Your task to perform on an android device: Show me popular videos on Youtube Image 0: 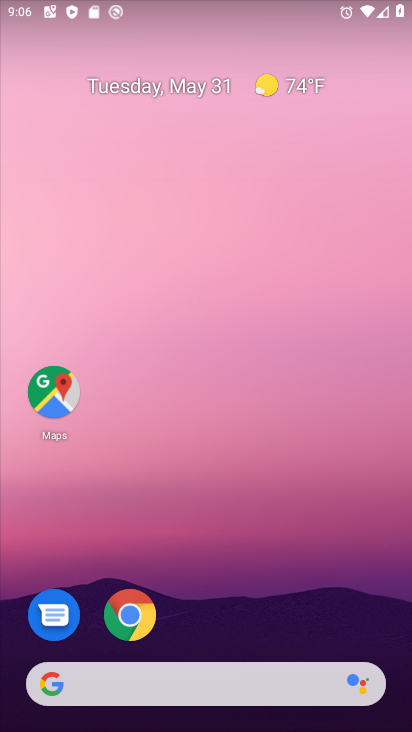
Step 0: drag from (218, 640) to (211, 228)
Your task to perform on an android device: Show me popular videos on Youtube Image 1: 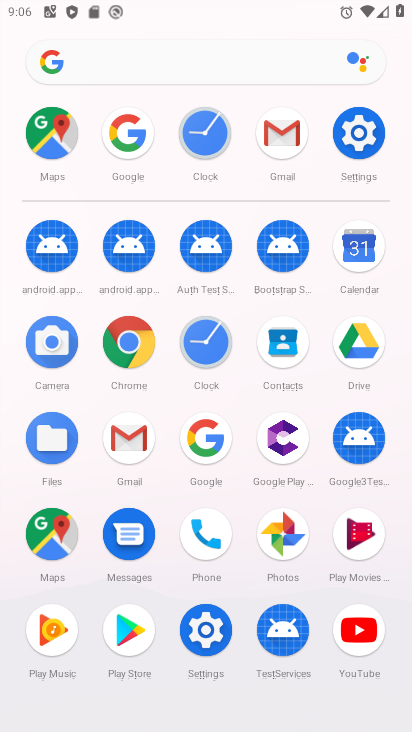
Step 1: click (344, 607)
Your task to perform on an android device: Show me popular videos on Youtube Image 2: 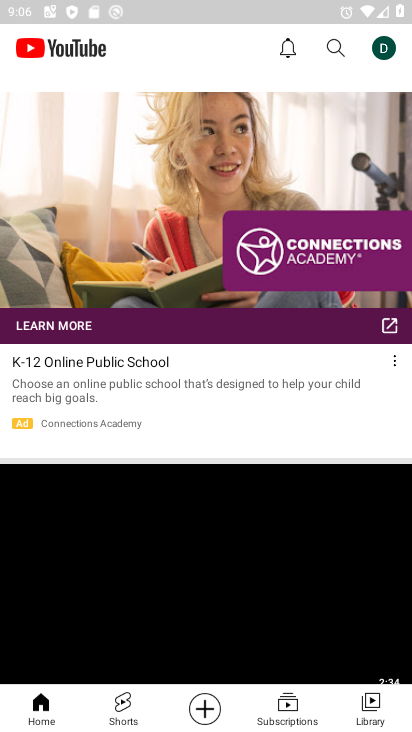
Step 2: click (339, 46)
Your task to perform on an android device: Show me popular videos on Youtube Image 3: 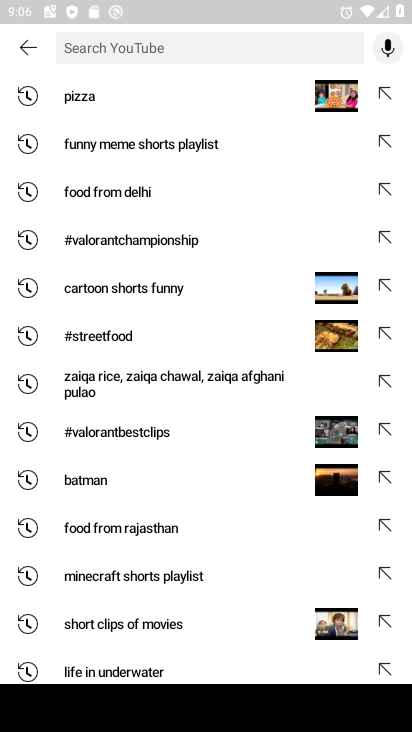
Step 3: type "popular videos"
Your task to perform on an android device: Show me popular videos on Youtube Image 4: 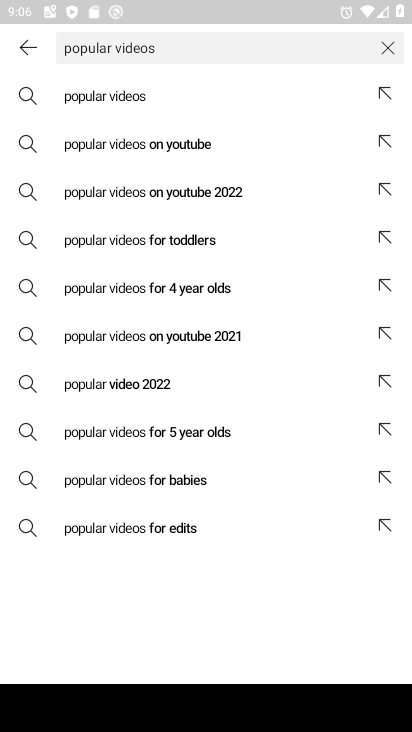
Step 4: click (116, 97)
Your task to perform on an android device: Show me popular videos on Youtube Image 5: 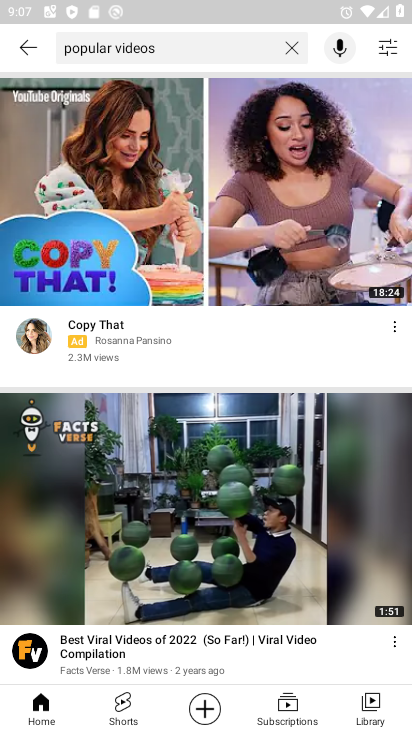
Step 5: task complete